Your task to perform on an android device: Go to accessibility settings Image 0: 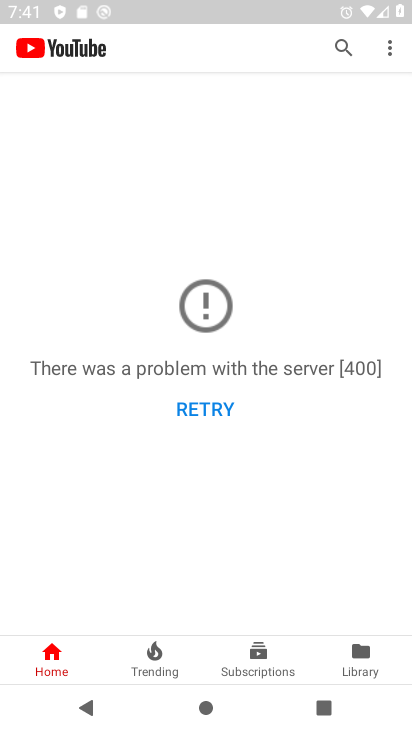
Step 0: press home button
Your task to perform on an android device: Go to accessibility settings Image 1: 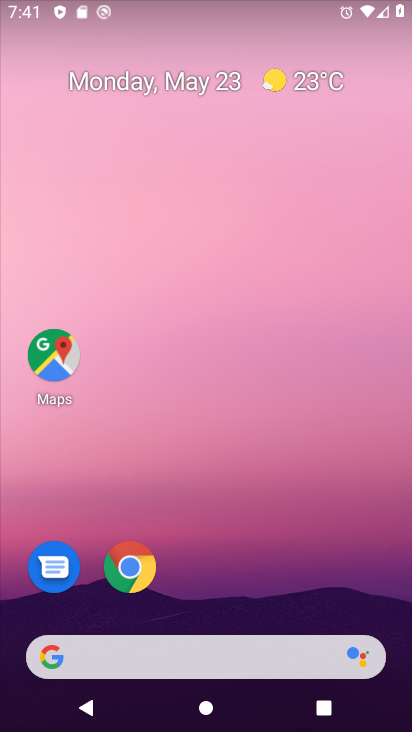
Step 1: drag from (215, 576) to (240, 242)
Your task to perform on an android device: Go to accessibility settings Image 2: 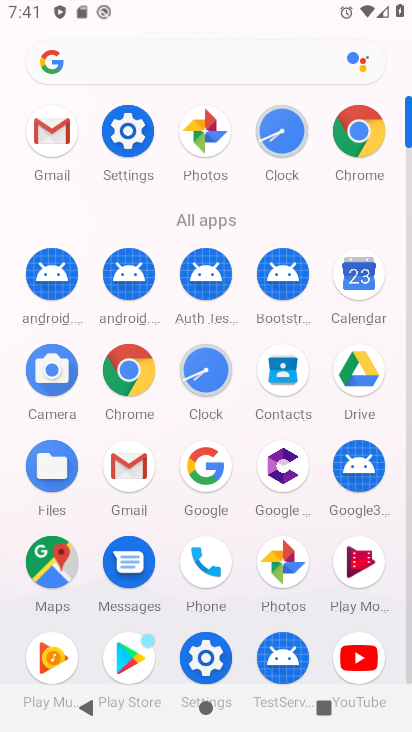
Step 2: click (136, 120)
Your task to perform on an android device: Go to accessibility settings Image 3: 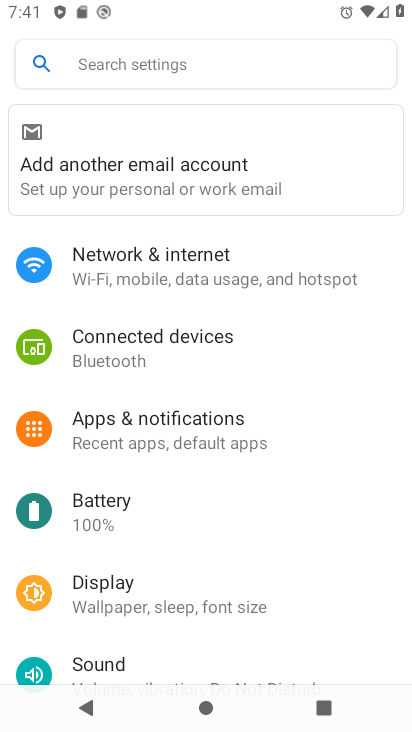
Step 3: drag from (192, 668) to (265, 213)
Your task to perform on an android device: Go to accessibility settings Image 4: 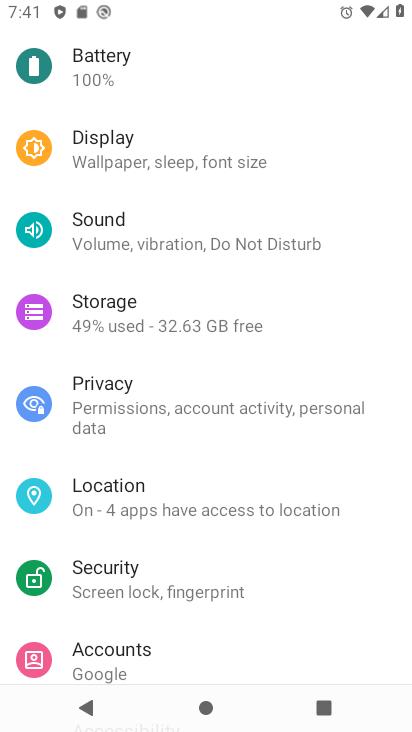
Step 4: drag from (184, 627) to (278, 118)
Your task to perform on an android device: Go to accessibility settings Image 5: 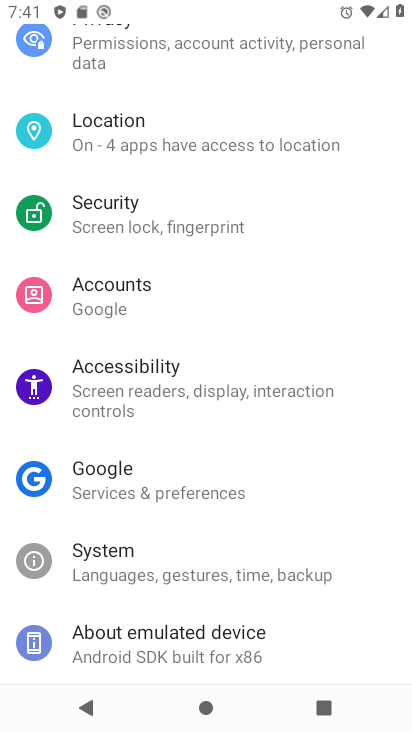
Step 5: click (161, 387)
Your task to perform on an android device: Go to accessibility settings Image 6: 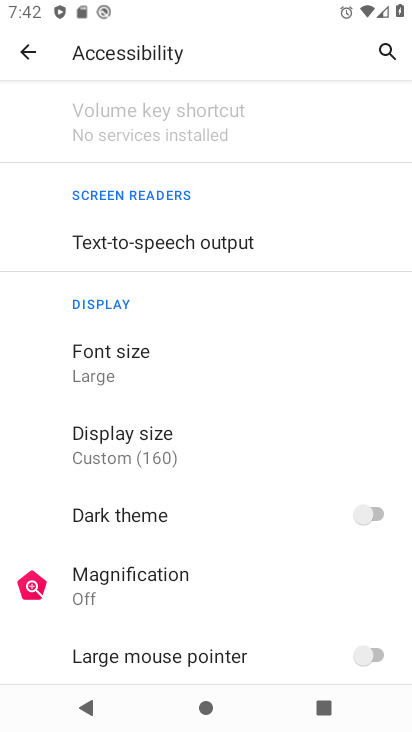
Step 6: task complete